Your task to perform on an android device: delete a single message in the gmail app Image 0: 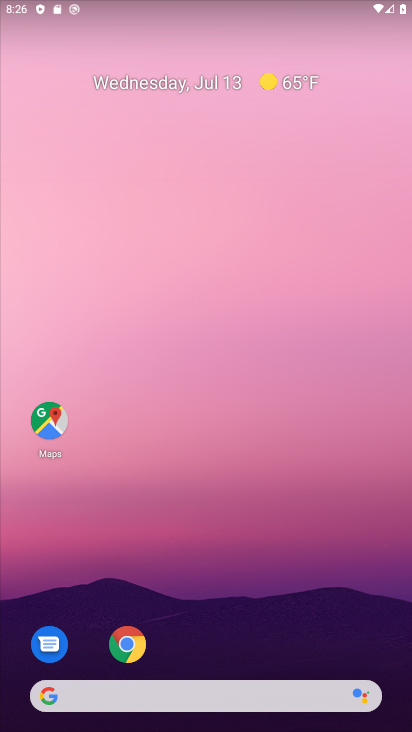
Step 0: drag from (269, 639) to (166, 156)
Your task to perform on an android device: delete a single message in the gmail app Image 1: 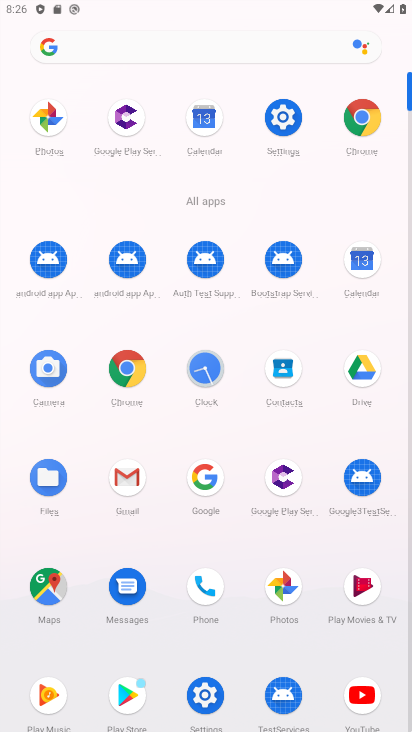
Step 1: click (135, 468)
Your task to perform on an android device: delete a single message in the gmail app Image 2: 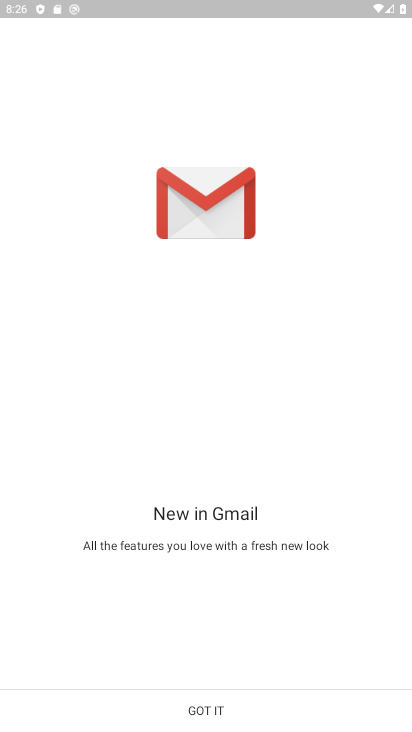
Step 2: click (247, 725)
Your task to perform on an android device: delete a single message in the gmail app Image 3: 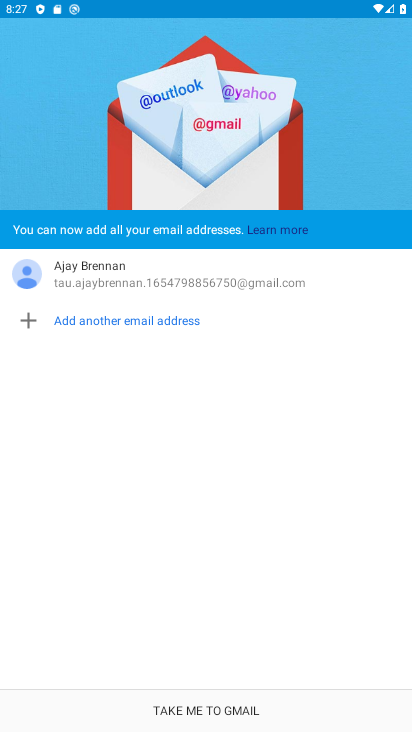
Step 3: click (244, 703)
Your task to perform on an android device: delete a single message in the gmail app Image 4: 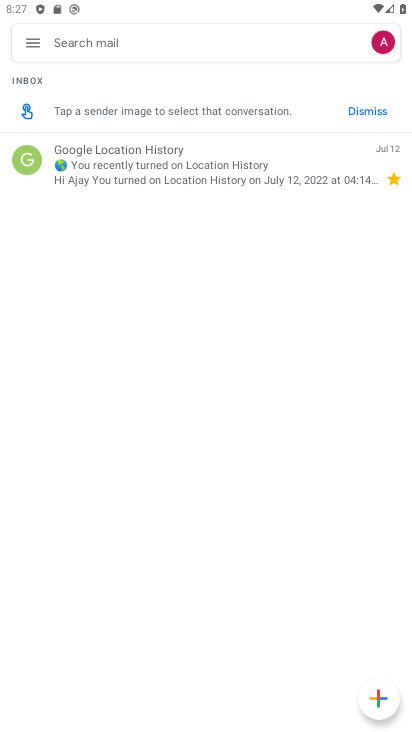
Step 4: click (243, 167)
Your task to perform on an android device: delete a single message in the gmail app Image 5: 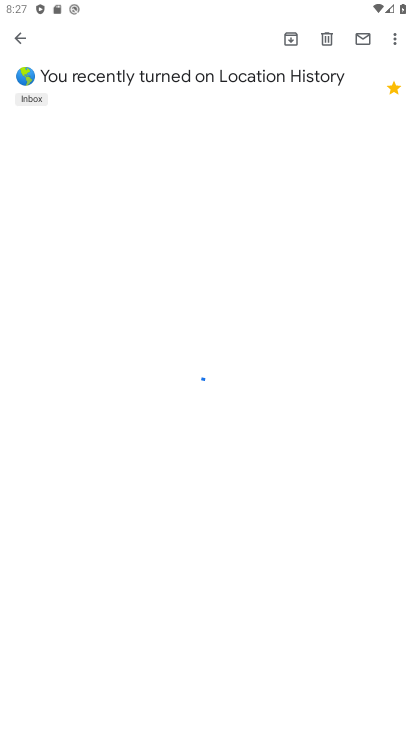
Step 5: click (320, 34)
Your task to perform on an android device: delete a single message in the gmail app Image 6: 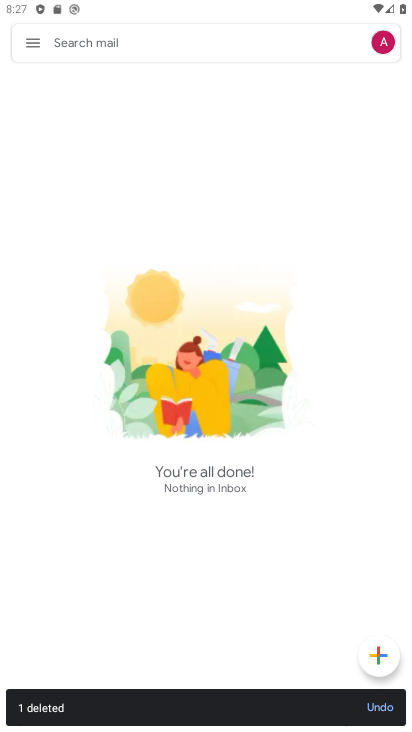
Step 6: task complete